Your task to perform on an android device: Open Maps and search for coffee Image 0: 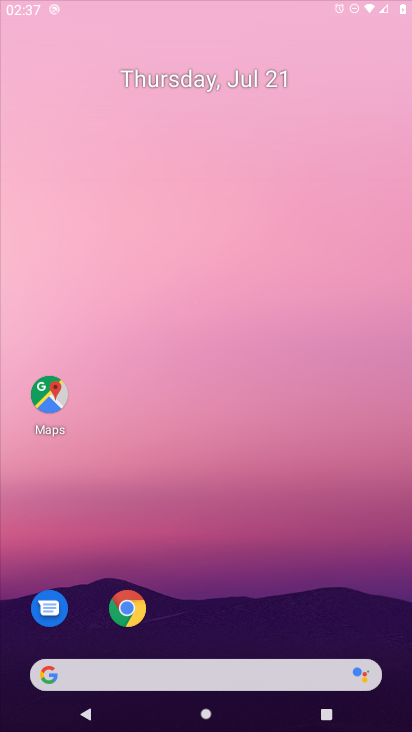
Step 0: press home button
Your task to perform on an android device: Open Maps and search for coffee Image 1: 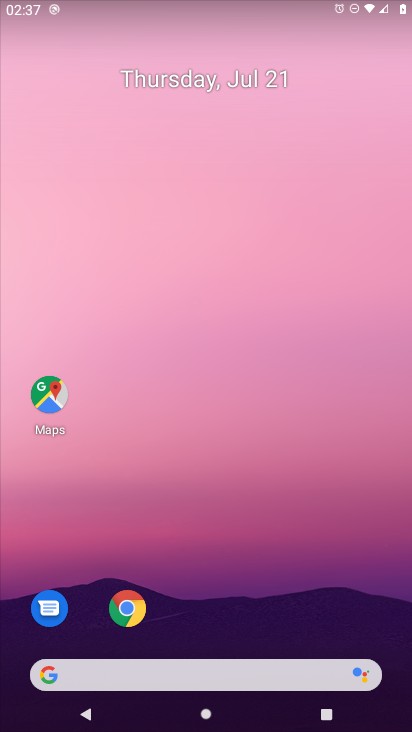
Step 1: drag from (230, 623) to (290, 69)
Your task to perform on an android device: Open Maps and search for coffee Image 2: 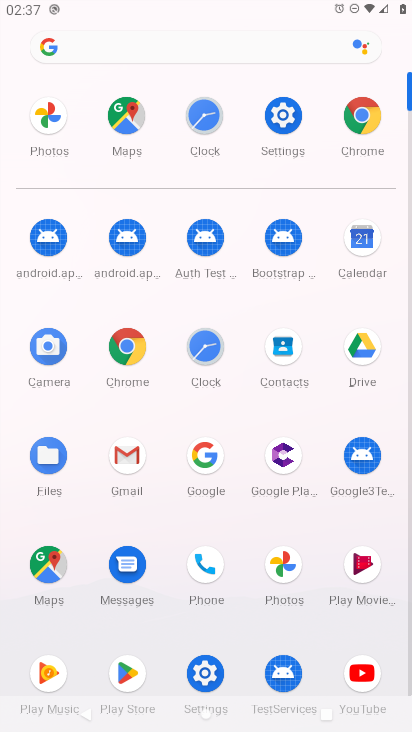
Step 2: click (127, 122)
Your task to perform on an android device: Open Maps and search for coffee Image 3: 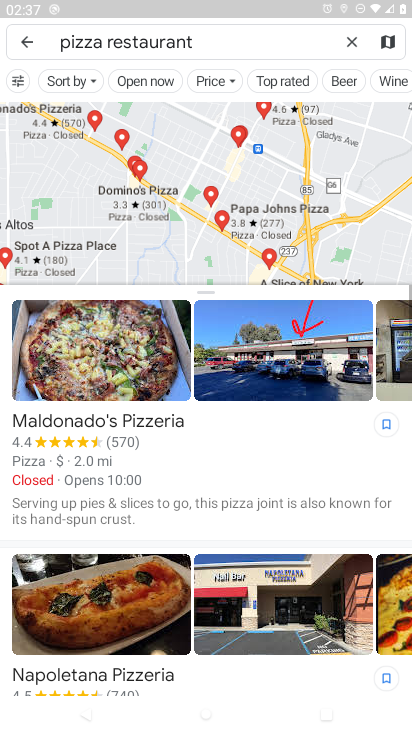
Step 3: click (352, 42)
Your task to perform on an android device: Open Maps and search for coffee Image 4: 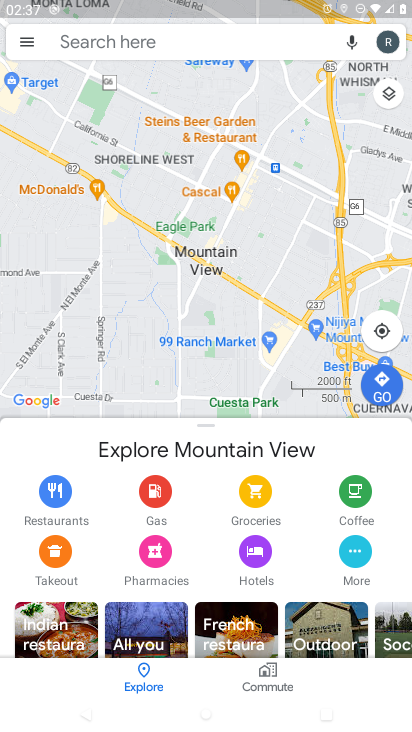
Step 4: click (155, 36)
Your task to perform on an android device: Open Maps and search for coffee Image 5: 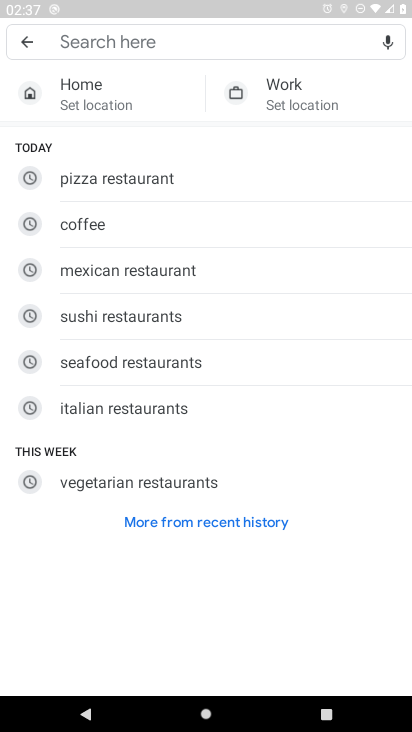
Step 5: click (77, 231)
Your task to perform on an android device: Open Maps and search for coffee Image 6: 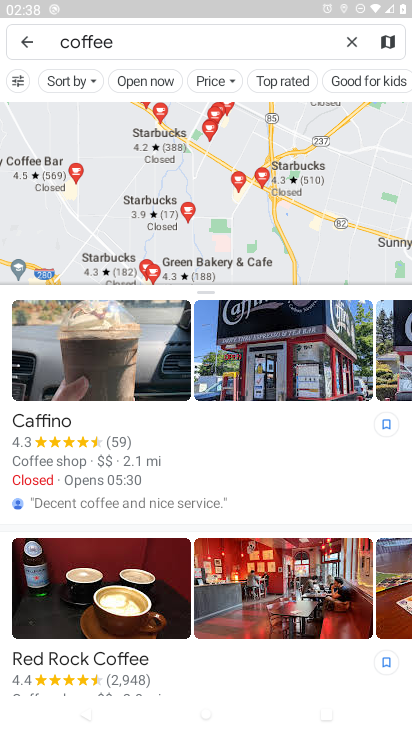
Step 6: task complete